Your task to perform on an android device: change keyboard looks Image 0: 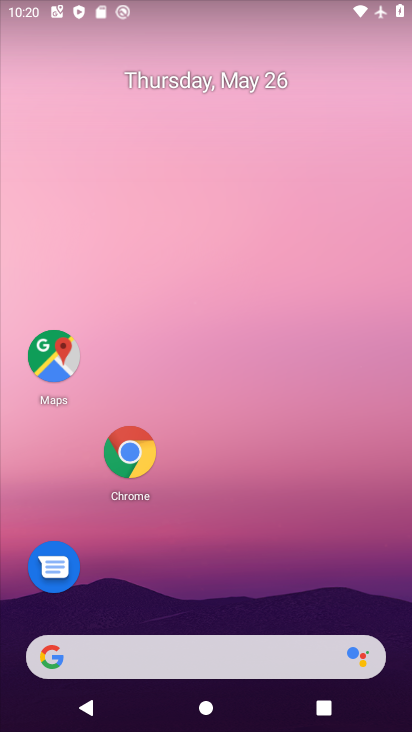
Step 0: press home button
Your task to perform on an android device: change keyboard looks Image 1: 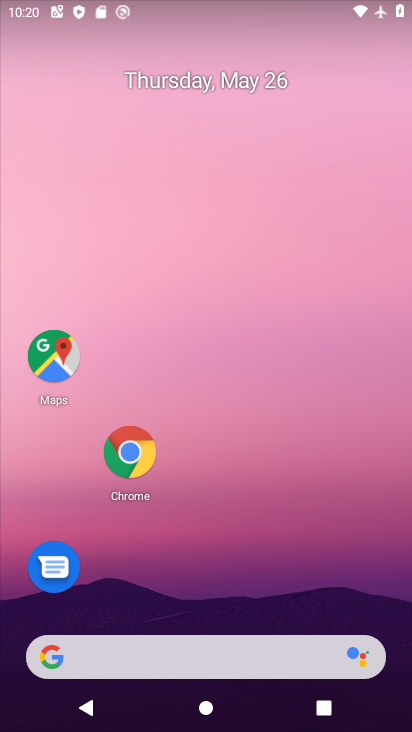
Step 1: drag from (196, 653) to (256, 76)
Your task to perform on an android device: change keyboard looks Image 2: 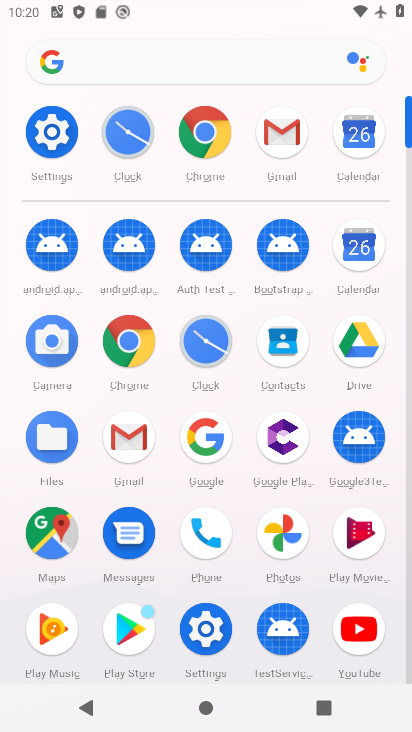
Step 2: click (46, 141)
Your task to perform on an android device: change keyboard looks Image 3: 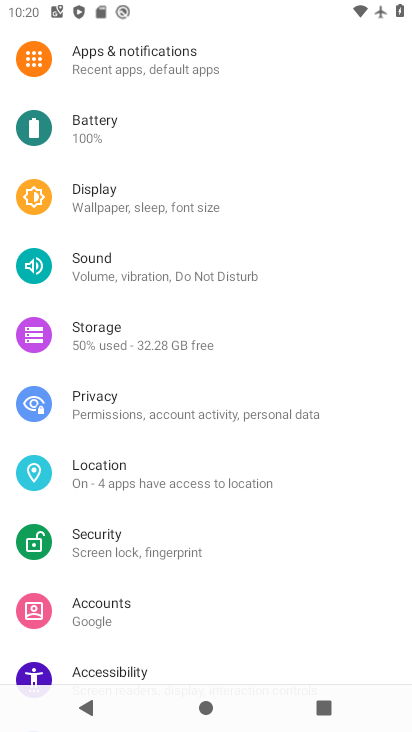
Step 3: drag from (242, 622) to (327, 82)
Your task to perform on an android device: change keyboard looks Image 4: 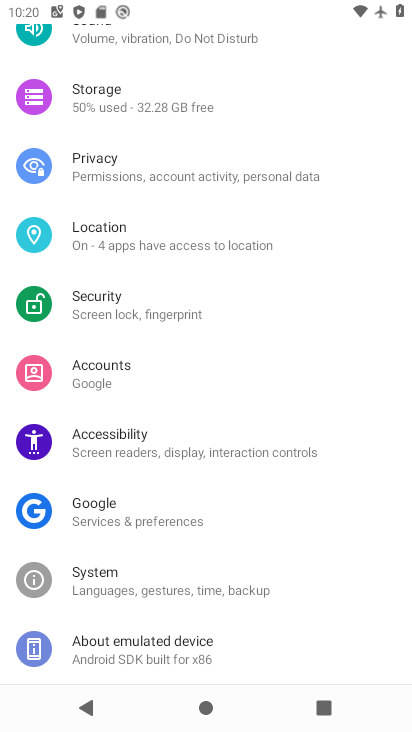
Step 4: click (172, 658)
Your task to perform on an android device: change keyboard looks Image 5: 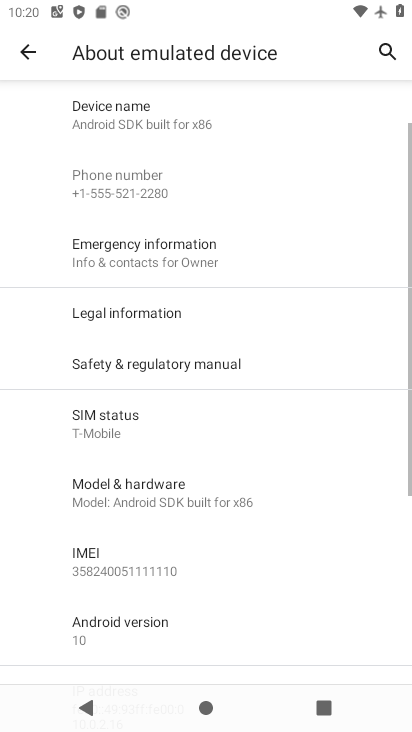
Step 5: click (26, 51)
Your task to perform on an android device: change keyboard looks Image 6: 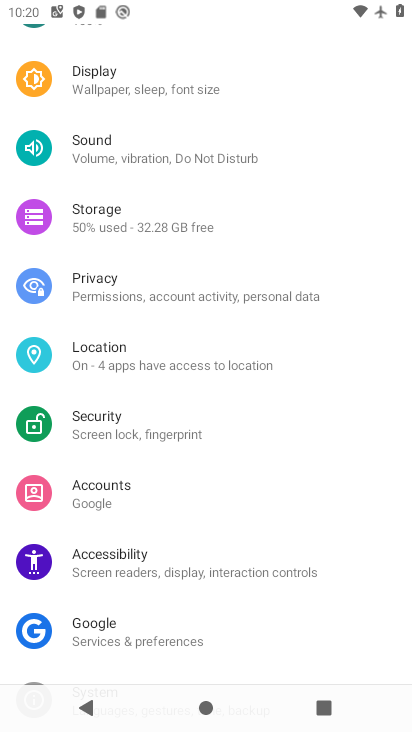
Step 6: drag from (119, 614) to (158, 122)
Your task to perform on an android device: change keyboard looks Image 7: 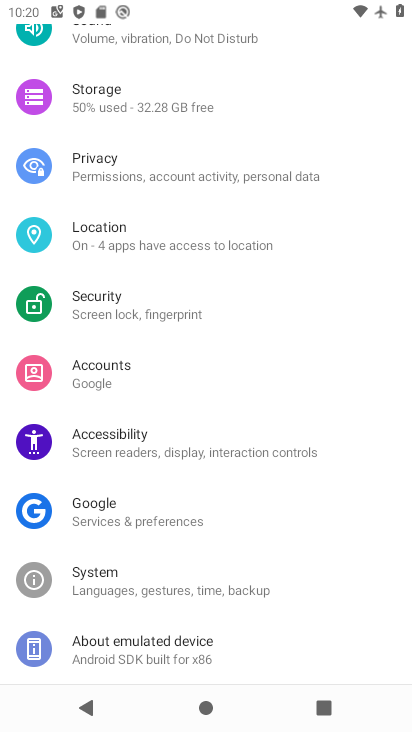
Step 7: click (99, 584)
Your task to perform on an android device: change keyboard looks Image 8: 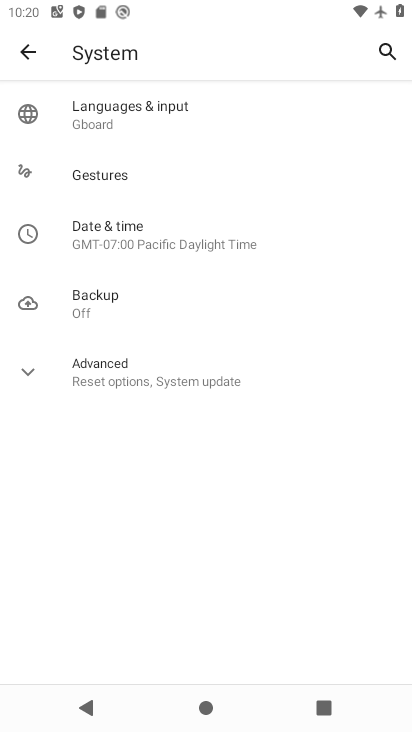
Step 8: click (156, 109)
Your task to perform on an android device: change keyboard looks Image 9: 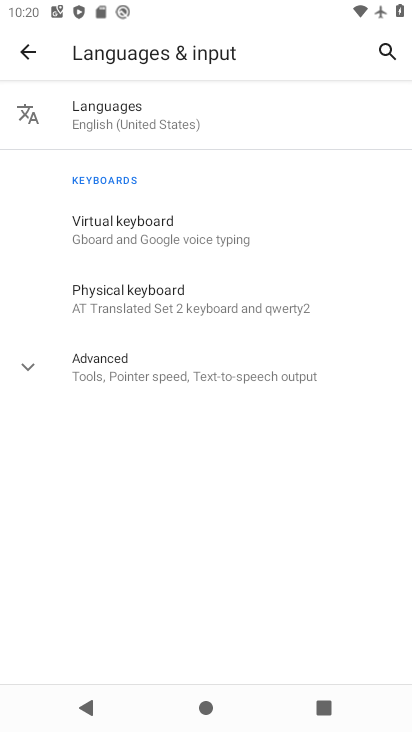
Step 9: click (137, 229)
Your task to perform on an android device: change keyboard looks Image 10: 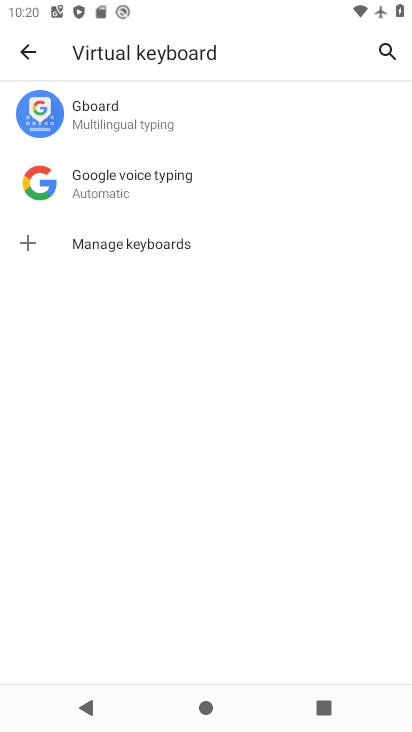
Step 10: click (112, 109)
Your task to perform on an android device: change keyboard looks Image 11: 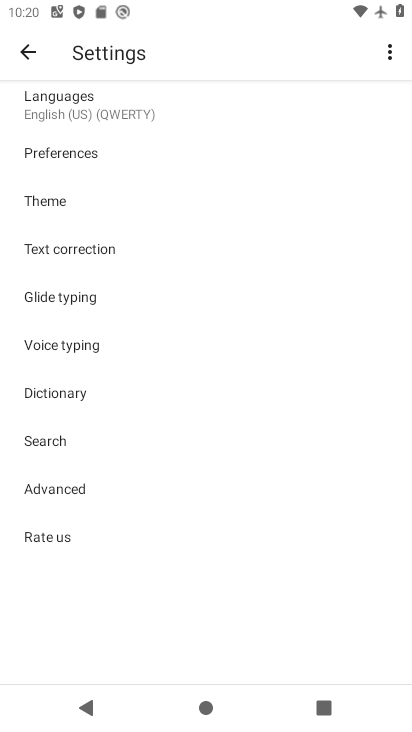
Step 11: click (41, 193)
Your task to perform on an android device: change keyboard looks Image 12: 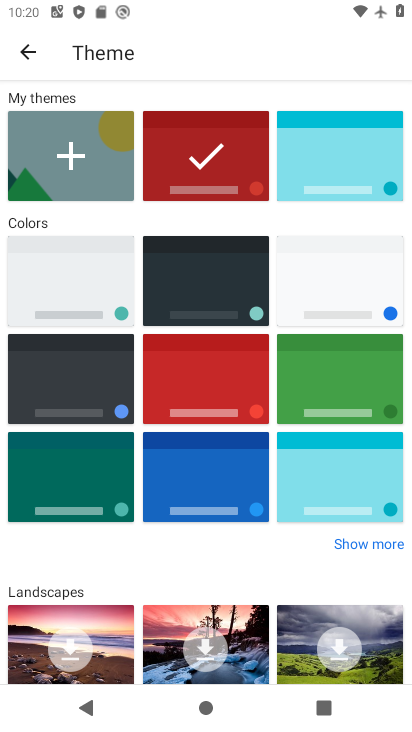
Step 12: click (300, 492)
Your task to perform on an android device: change keyboard looks Image 13: 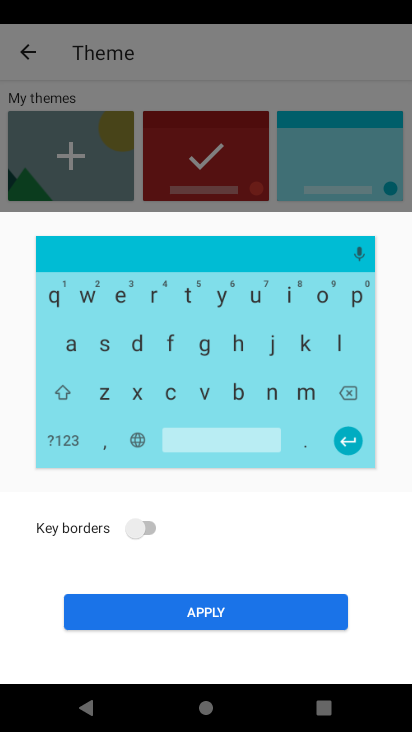
Step 13: click (223, 615)
Your task to perform on an android device: change keyboard looks Image 14: 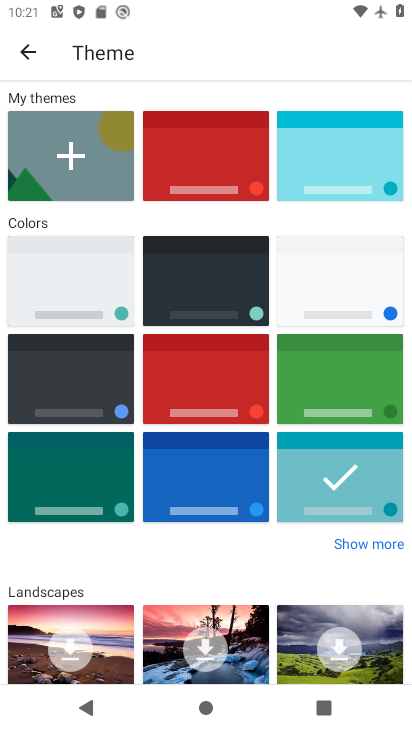
Step 14: task complete